Your task to perform on an android device: Open Android settings Image 0: 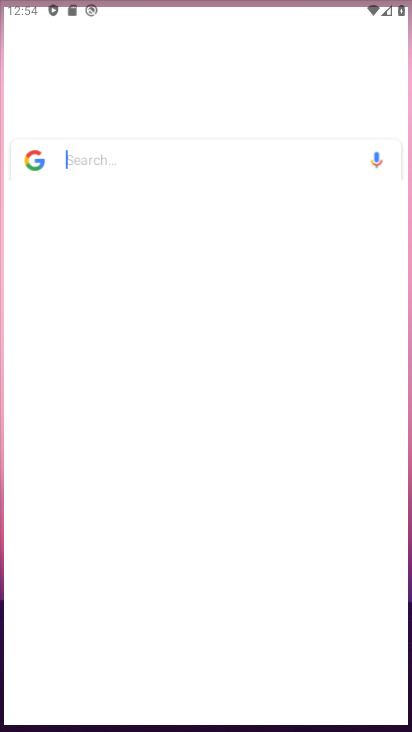
Step 0: drag from (210, 650) to (204, 210)
Your task to perform on an android device: Open Android settings Image 1: 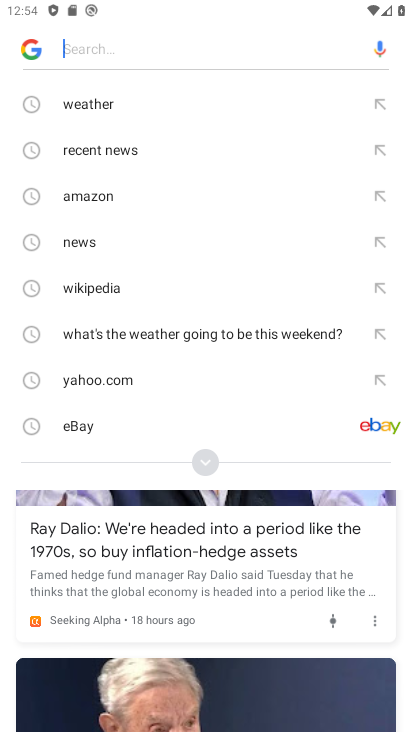
Step 1: press home button
Your task to perform on an android device: Open Android settings Image 2: 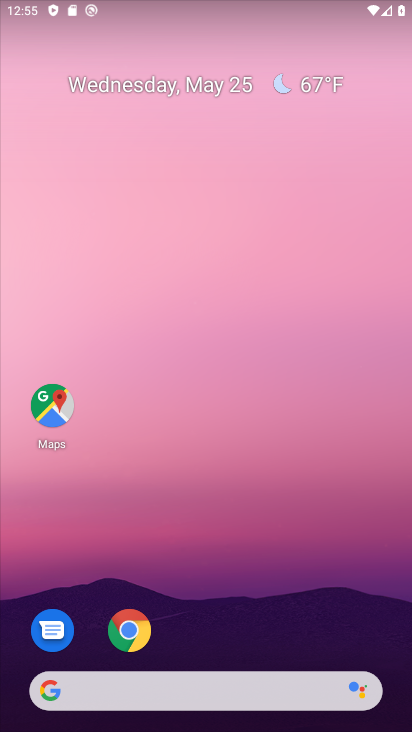
Step 2: drag from (237, 610) to (220, 25)
Your task to perform on an android device: Open Android settings Image 3: 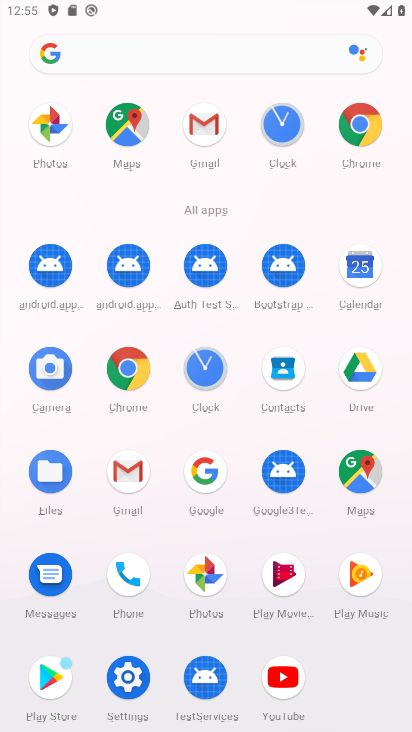
Step 3: click (123, 673)
Your task to perform on an android device: Open Android settings Image 4: 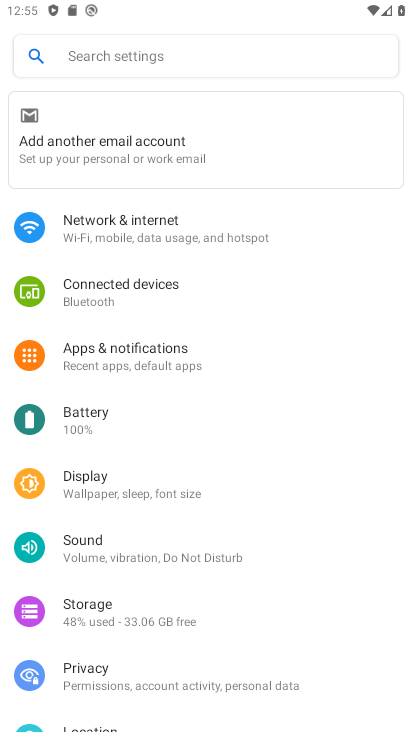
Step 4: drag from (170, 691) to (176, 236)
Your task to perform on an android device: Open Android settings Image 5: 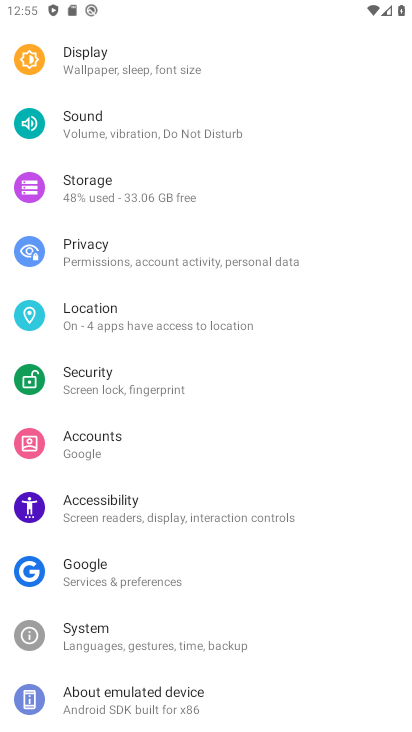
Step 5: click (137, 700)
Your task to perform on an android device: Open Android settings Image 6: 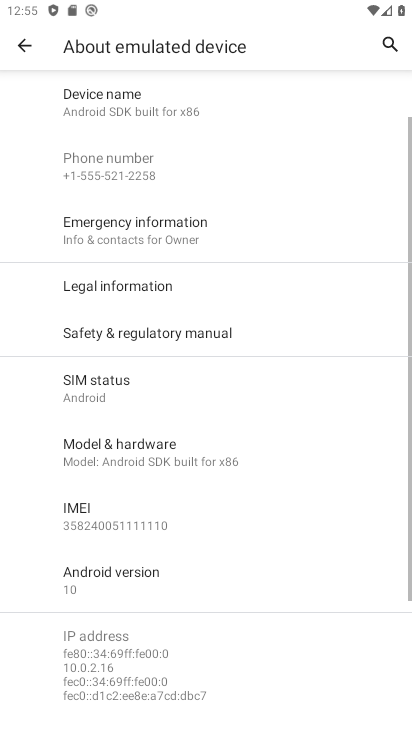
Step 6: click (121, 593)
Your task to perform on an android device: Open Android settings Image 7: 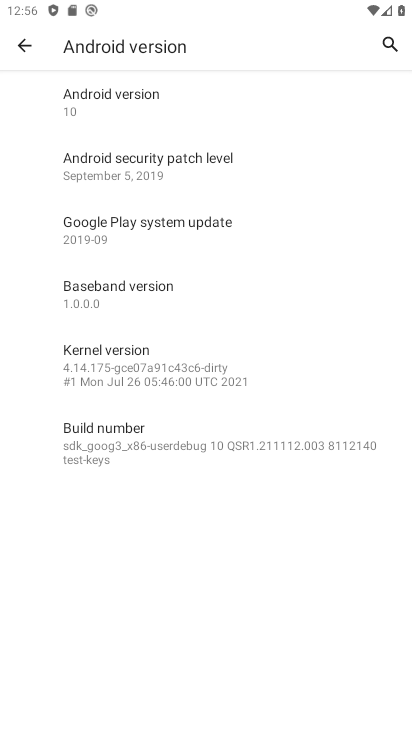
Step 7: task complete